Your task to perform on an android device: Open Google Maps and go to "Timeline" Image 0: 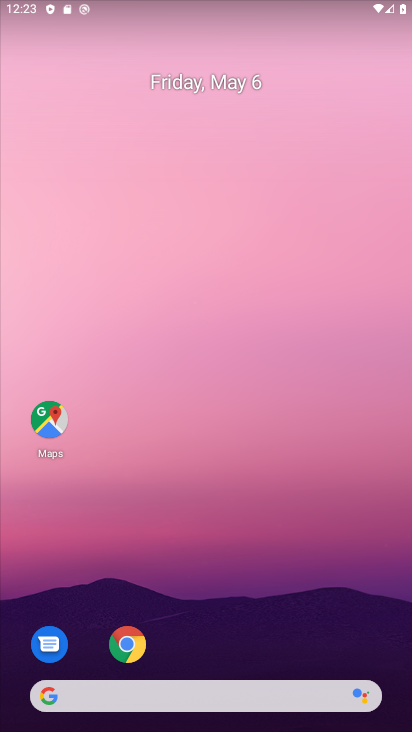
Step 0: drag from (256, 655) to (304, 8)
Your task to perform on an android device: Open Google Maps and go to "Timeline" Image 1: 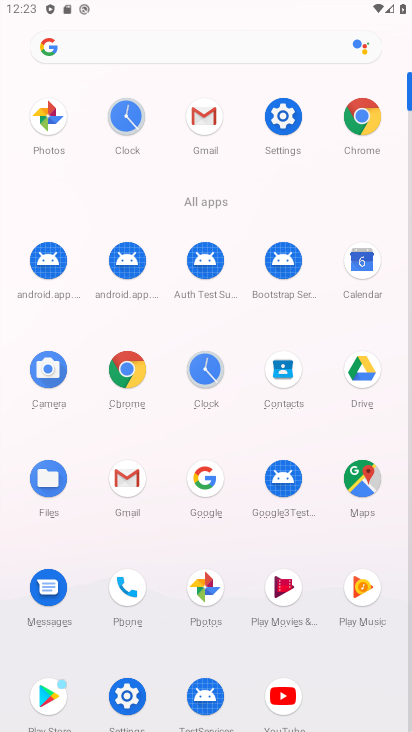
Step 1: click (363, 482)
Your task to perform on an android device: Open Google Maps and go to "Timeline" Image 2: 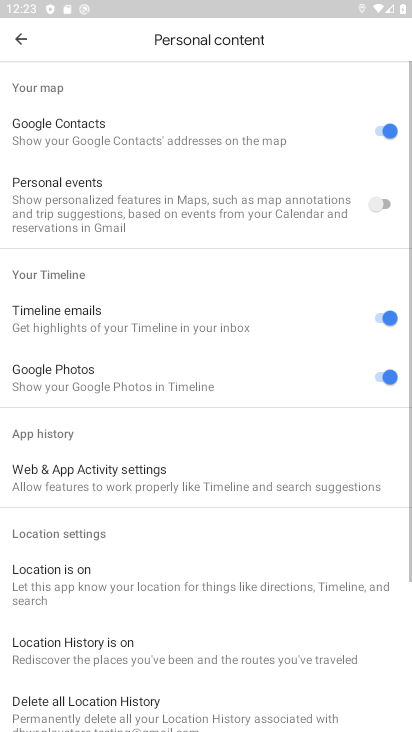
Step 2: press back button
Your task to perform on an android device: Open Google Maps and go to "Timeline" Image 3: 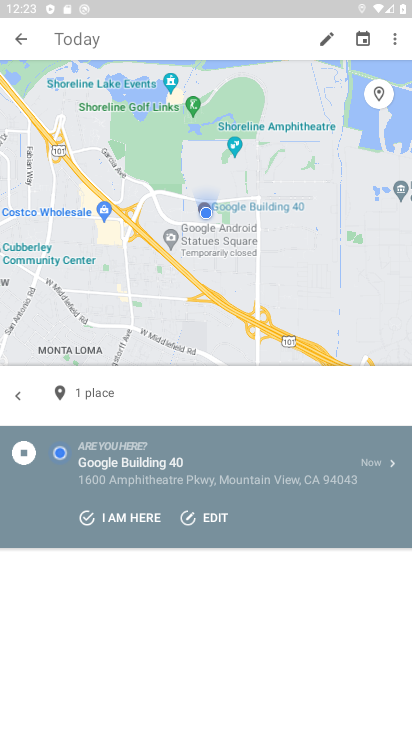
Step 3: press back button
Your task to perform on an android device: Open Google Maps and go to "Timeline" Image 4: 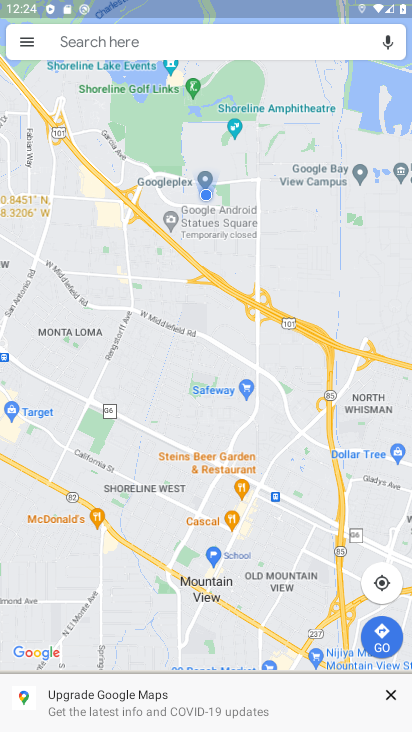
Step 4: click (27, 41)
Your task to perform on an android device: Open Google Maps and go to "Timeline" Image 5: 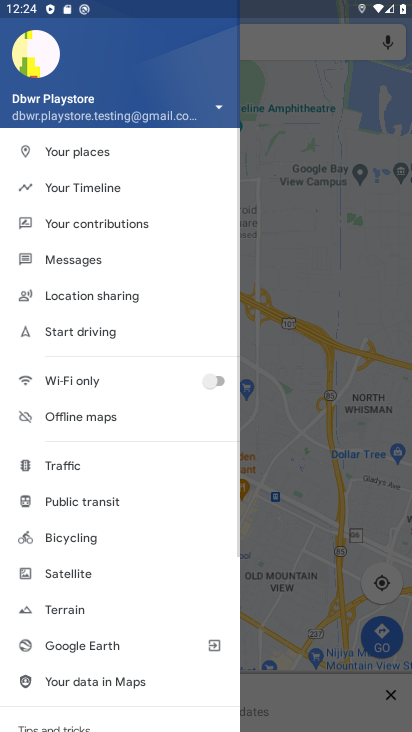
Step 5: click (130, 183)
Your task to perform on an android device: Open Google Maps and go to "Timeline" Image 6: 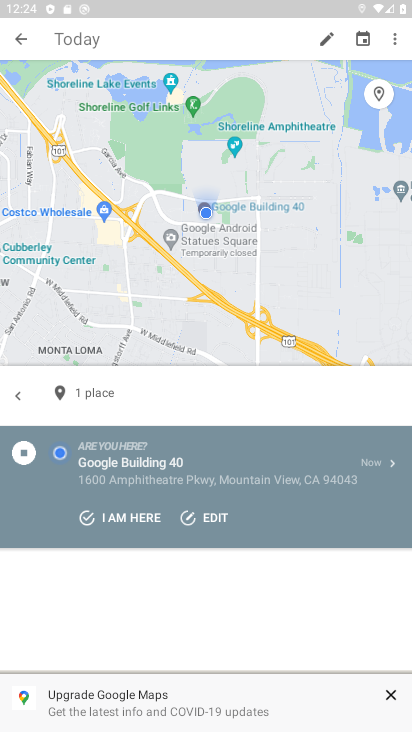
Step 6: click (387, 34)
Your task to perform on an android device: Open Google Maps and go to "Timeline" Image 7: 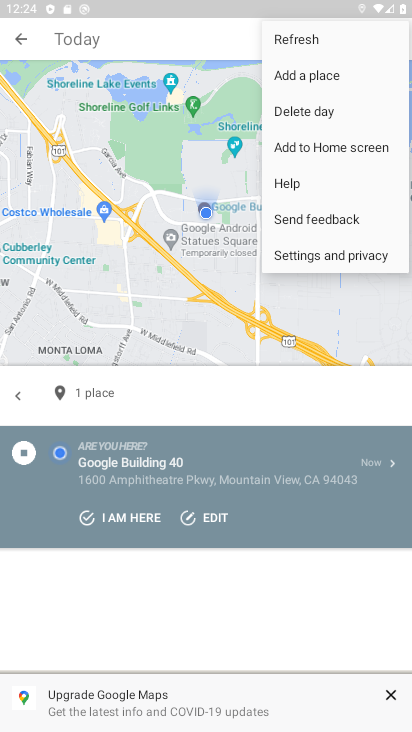
Step 7: click (298, 252)
Your task to perform on an android device: Open Google Maps and go to "Timeline" Image 8: 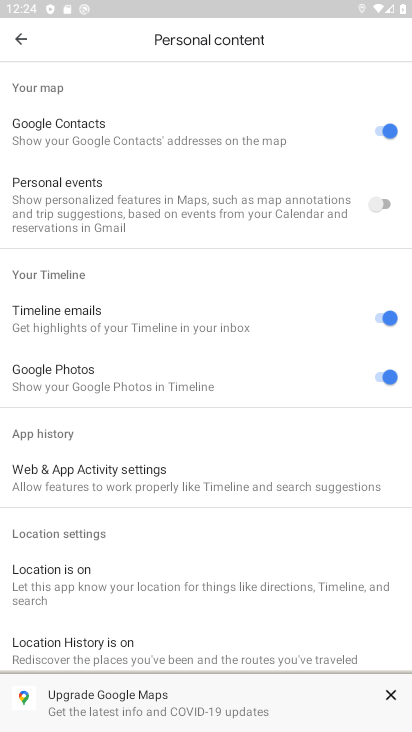
Step 8: task complete